Your task to perform on an android device: open wifi settings Image 0: 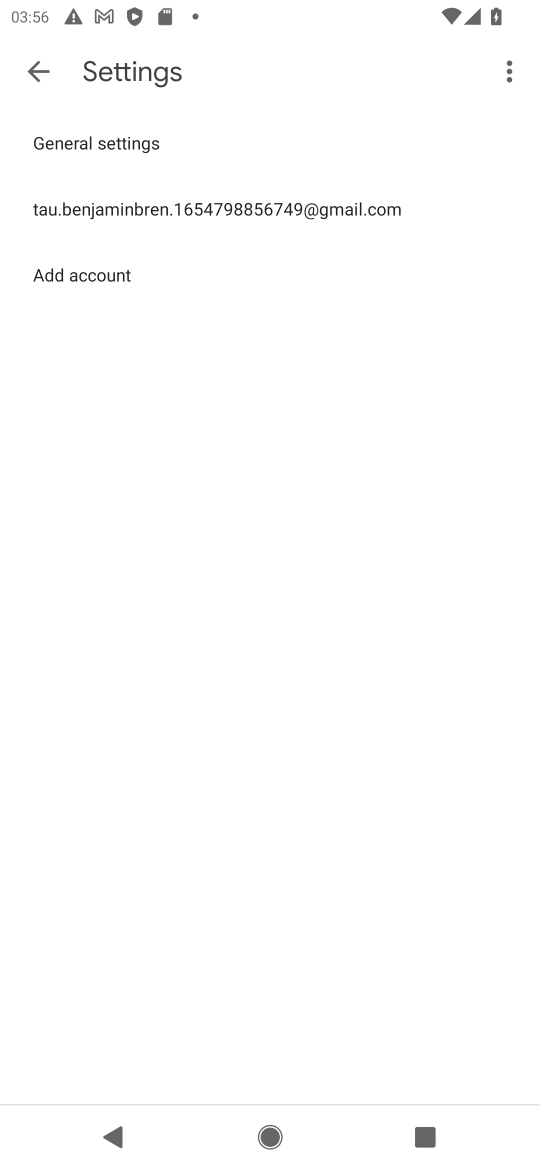
Step 0: press home button
Your task to perform on an android device: open wifi settings Image 1: 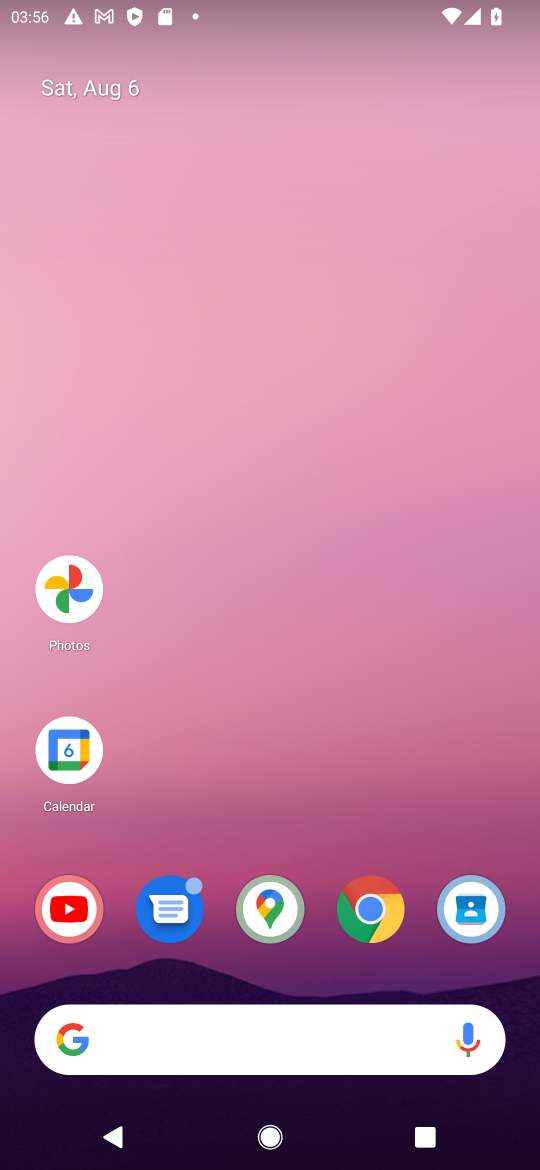
Step 1: drag from (268, 835) to (271, 80)
Your task to perform on an android device: open wifi settings Image 2: 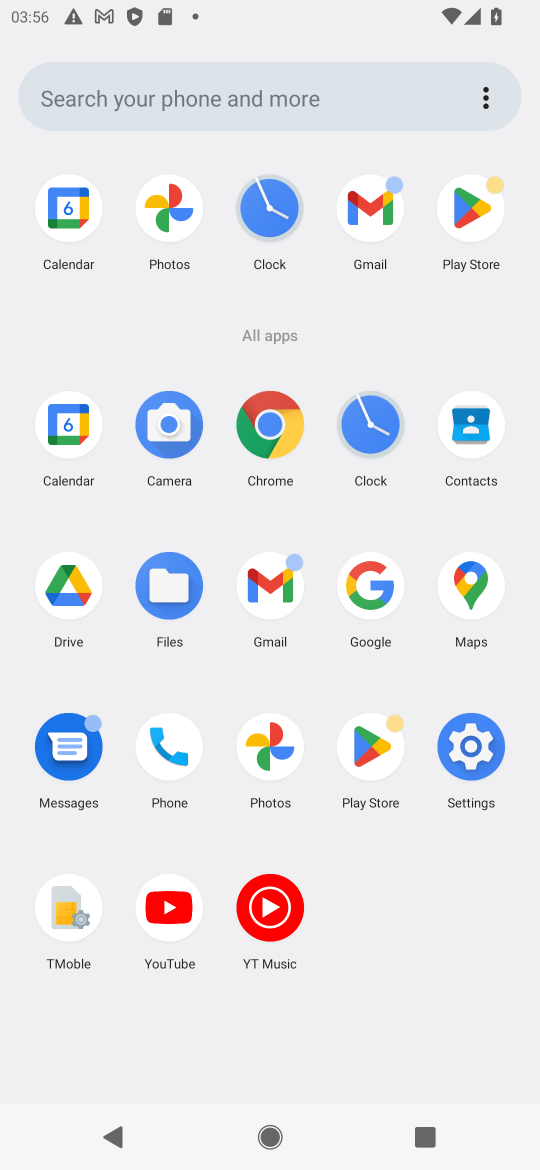
Step 2: click (470, 752)
Your task to perform on an android device: open wifi settings Image 3: 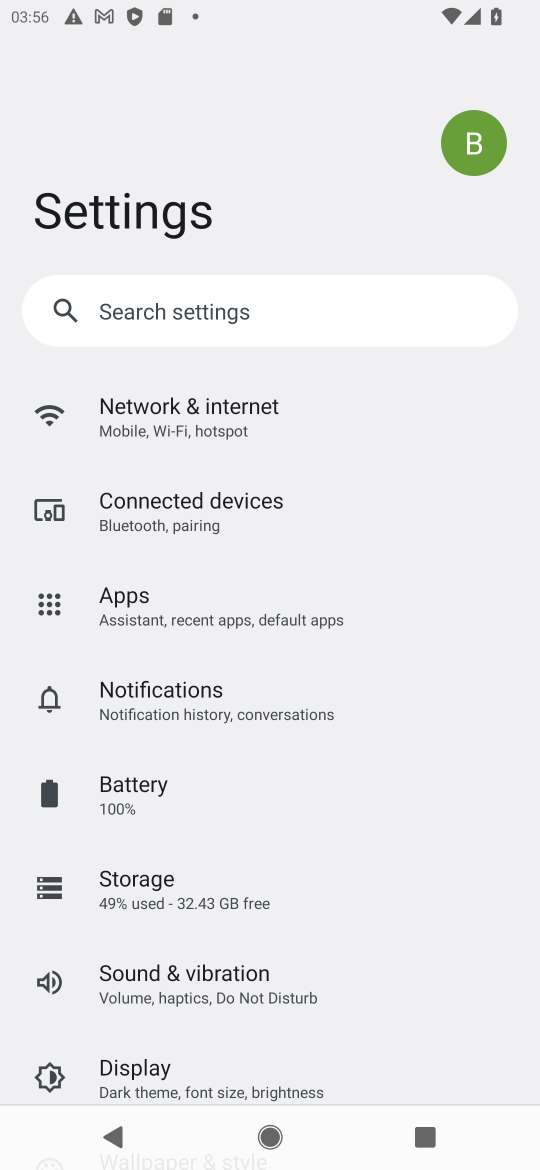
Step 3: click (182, 399)
Your task to perform on an android device: open wifi settings Image 4: 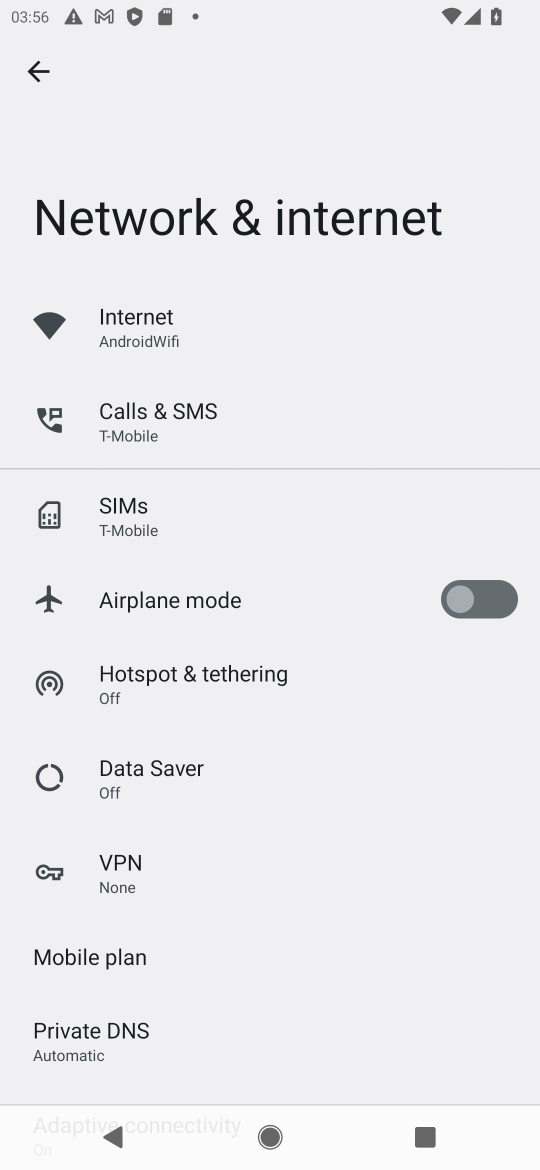
Step 4: click (141, 323)
Your task to perform on an android device: open wifi settings Image 5: 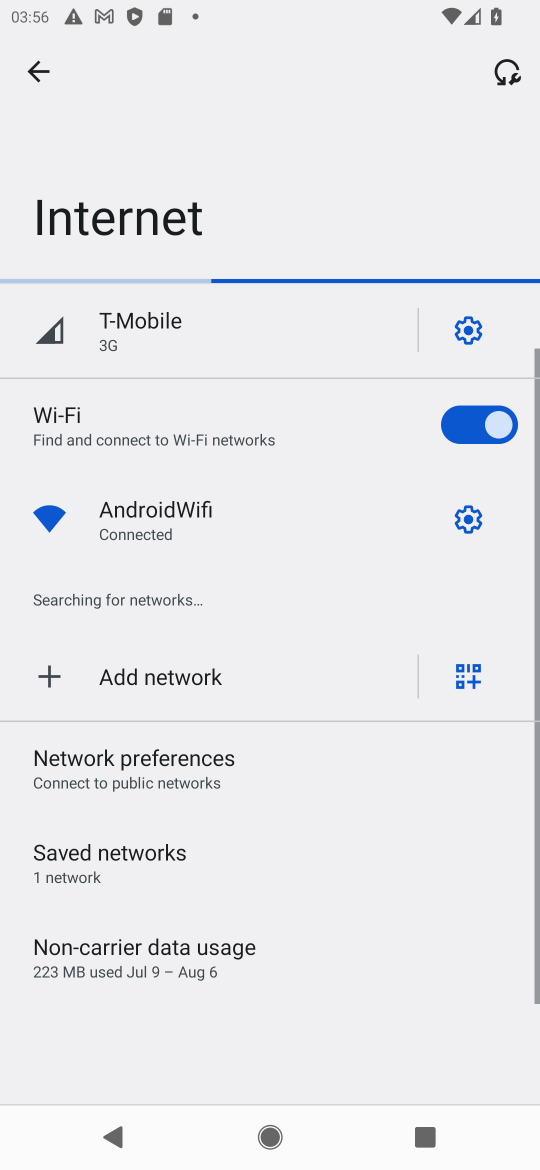
Step 5: task complete